Your task to perform on an android device: What's the weather going to be tomorrow? Image 0: 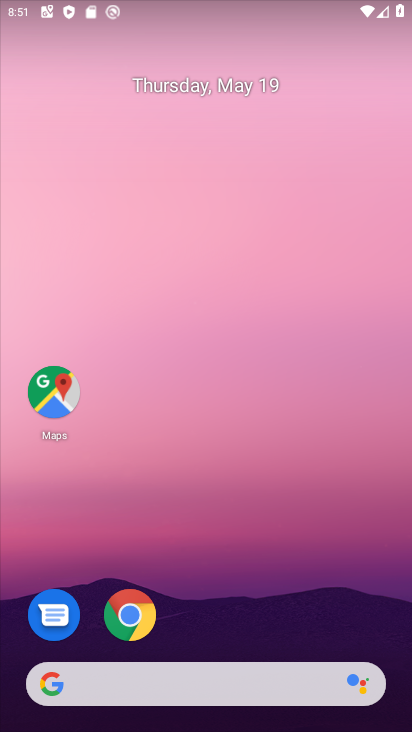
Step 0: press home button
Your task to perform on an android device: What's the weather going to be tomorrow? Image 1: 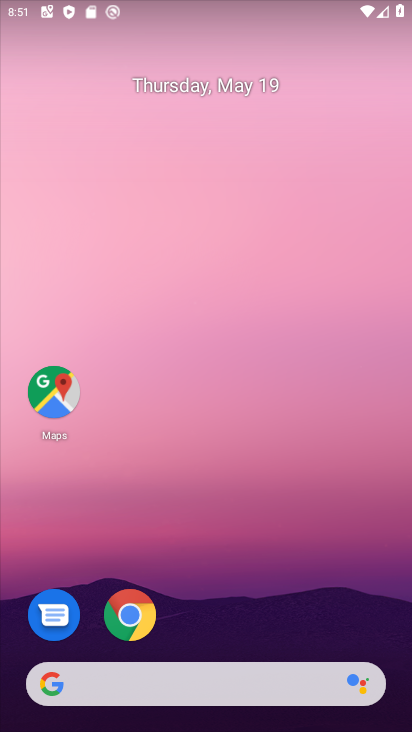
Step 1: click (132, 634)
Your task to perform on an android device: What's the weather going to be tomorrow? Image 2: 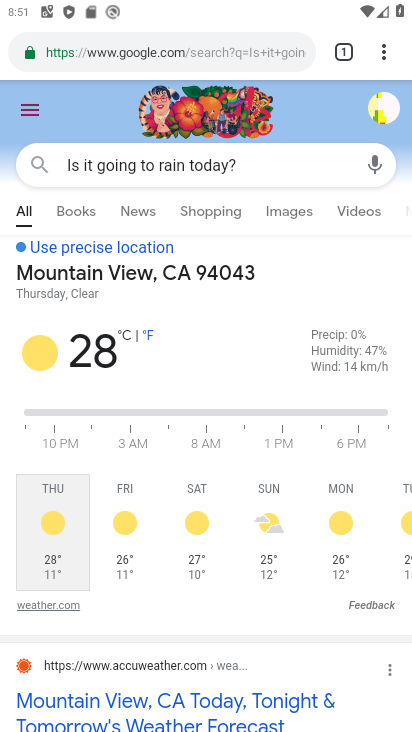
Step 2: click (95, 47)
Your task to perform on an android device: What's the weather going to be tomorrow? Image 3: 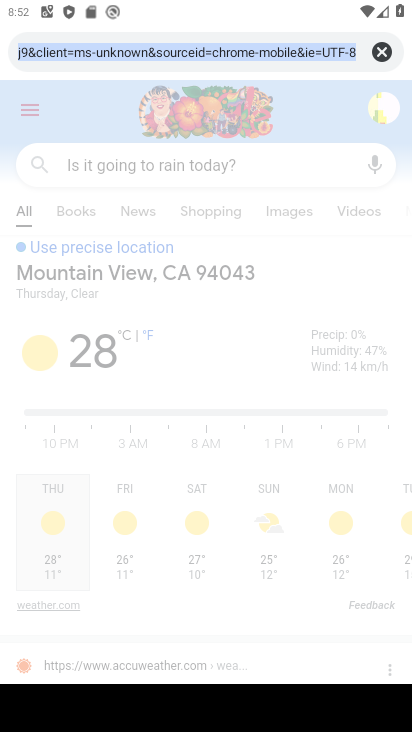
Step 3: click (254, 50)
Your task to perform on an android device: What's the weather going to be tomorrow? Image 4: 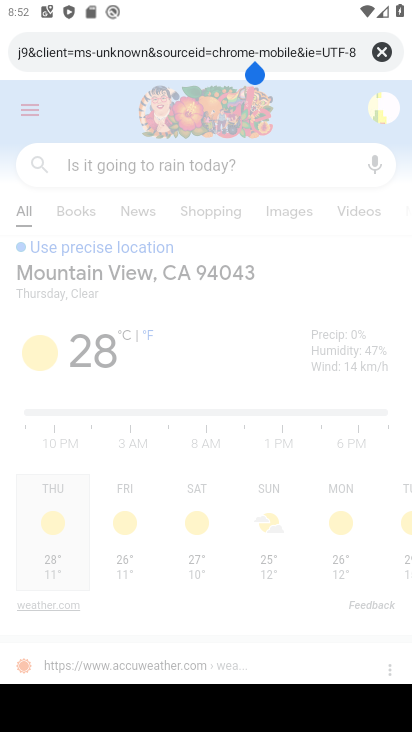
Step 4: click (381, 48)
Your task to perform on an android device: What's the weather going to be tomorrow? Image 5: 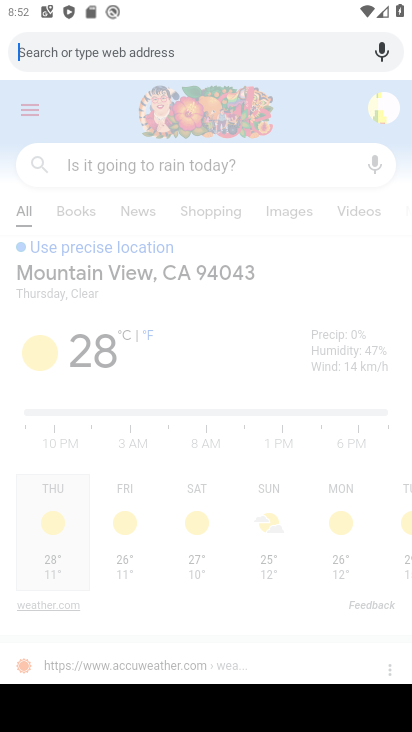
Step 5: type "What's the weather going to be tomorrow?"
Your task to perform on an android device: What's the weather going to be tomorrow? Image 6: 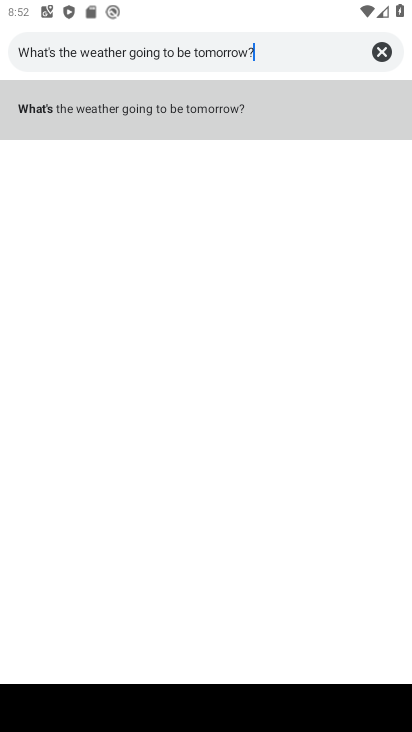
Step 6: click (263, 98)
Your task to perform on an android device: What's the weather going to be tomorrow? Image 7: 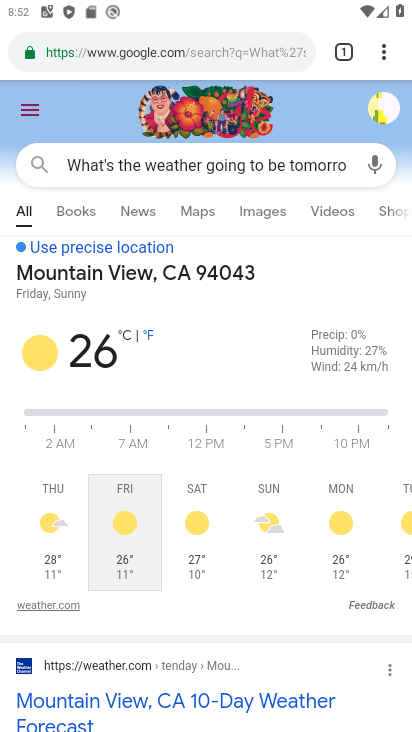
Step 7: task complete